Your task to perform on an android device: turn off wifi Image 0: 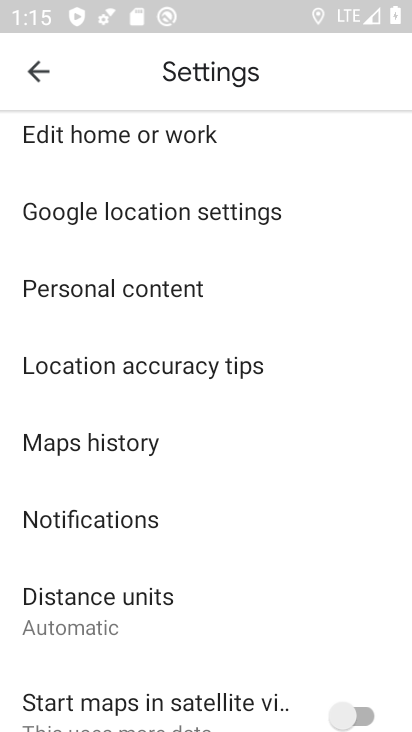
Step 0: press back button
Your task to perform on an android device: turn off wifi Image 1: 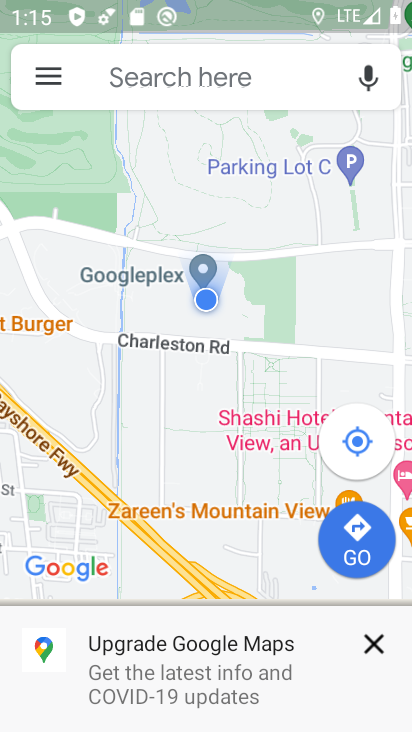
Step 1: press home button
Your task to perform on an android device: turn off wifi Image 2: 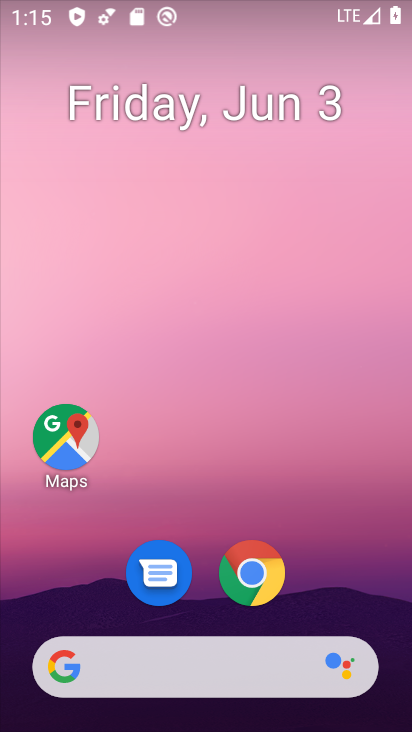
Step 2: drag from (350, 576) to (342, 318)
Your task to perform on an android device: turn off wifi Image 3: 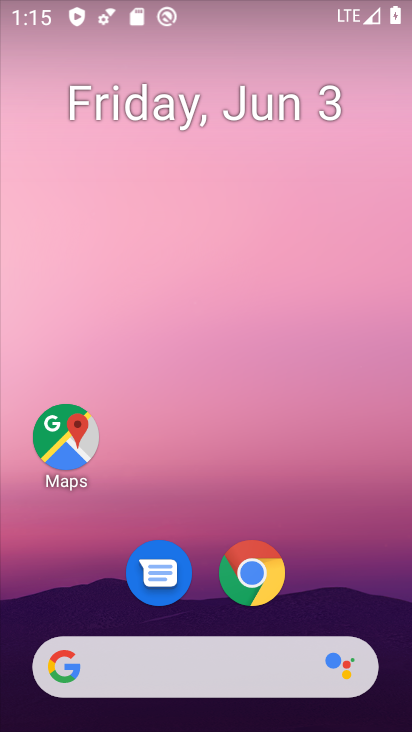
Step 3: drag from (349, 580) to (355, 212)
Your task to perform on an android device: turn off wifi Image 4: 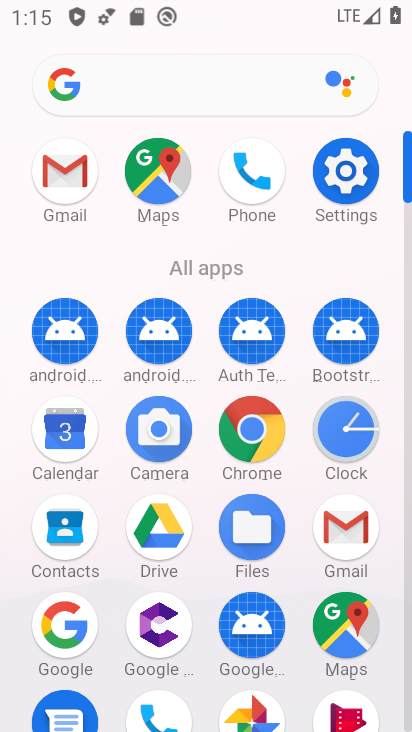
Step 4: click (338, 199)
Your task to perform on an android device: turn off wifi Image 5: 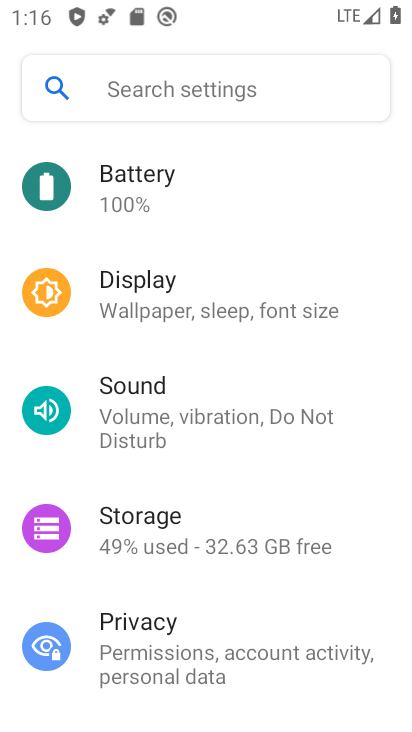
Step 5: drag from (354, 502) to (365, 431)
Your task to perform on an android device: turn off wifi Image 6: 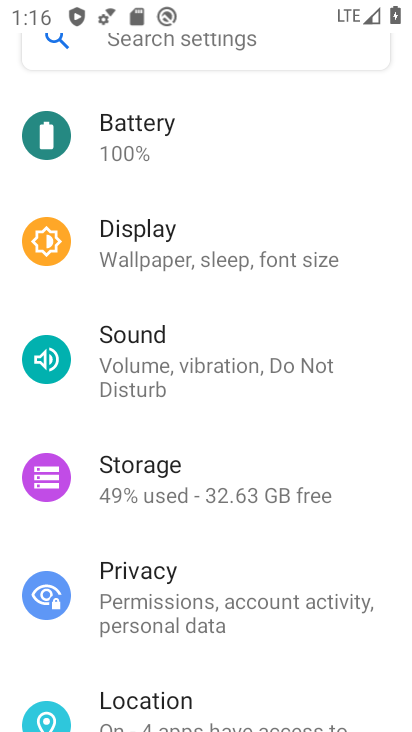
Step 6: drag from (366, 522) to (373, 428)
Your task to perform on an android device: turn off wifi Image 7: 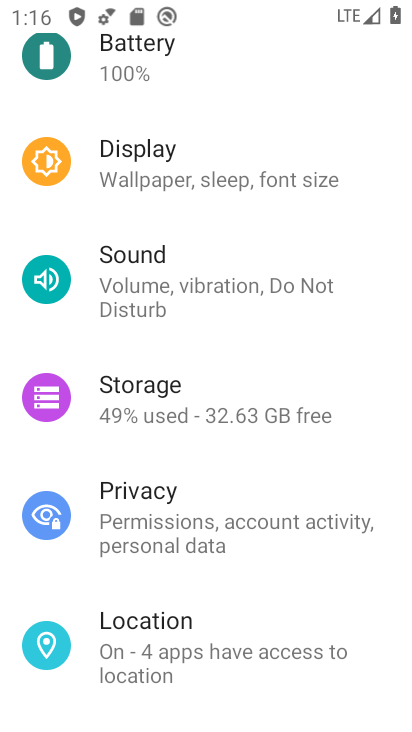
Step 7: drag from (363, 561) to (365, 476)
Your task to perform on an android device: turn off wifi Image 8: 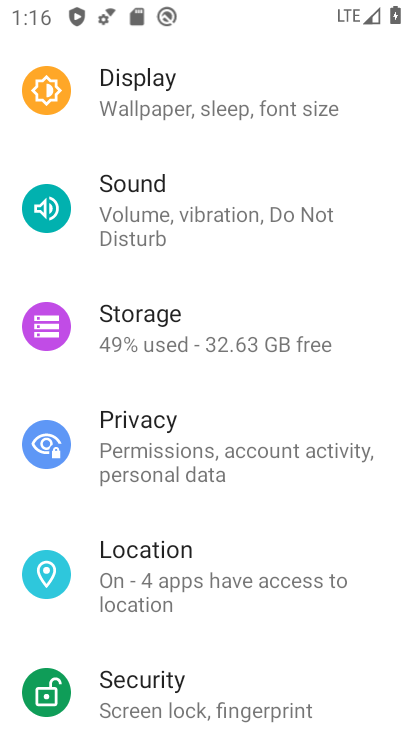
Step 8: drag from (368, 595) to (368, 545)
Your task to perform on an android device: turn off wifi Image 9: 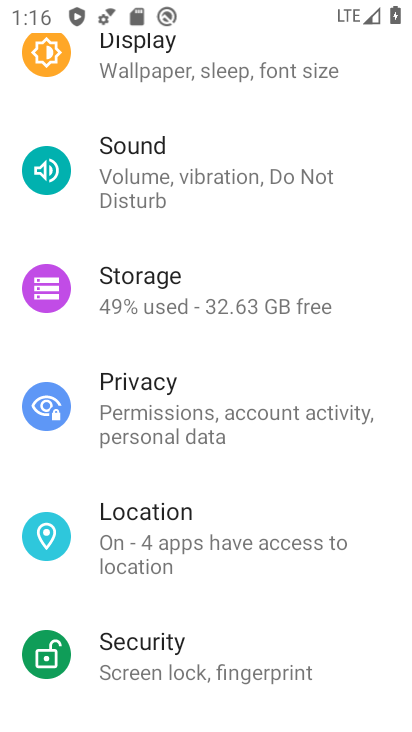
Step 9: drag from (374, 622) to (367, 538)
Your task to perform on an android device: turn off wifi Image 10: 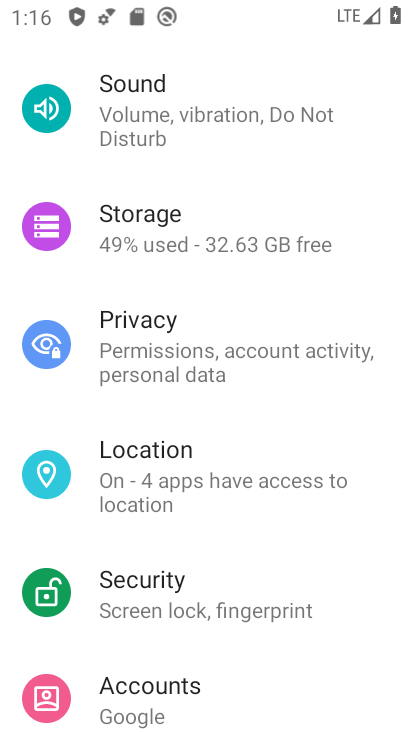
Step 10: drag from (308, 256) to (309, 427)
Your task to perform on an android device: turn off wifi Image 11: 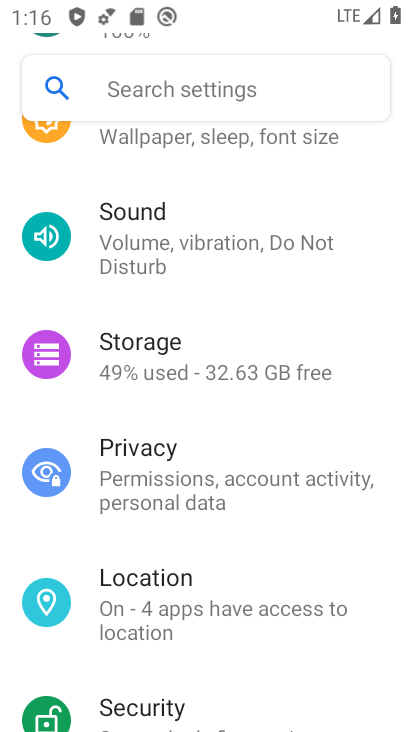
Step 11: drag from (341, 286) to (345, 382)
Your task to perform on an android device: turn off wifi Image 12: 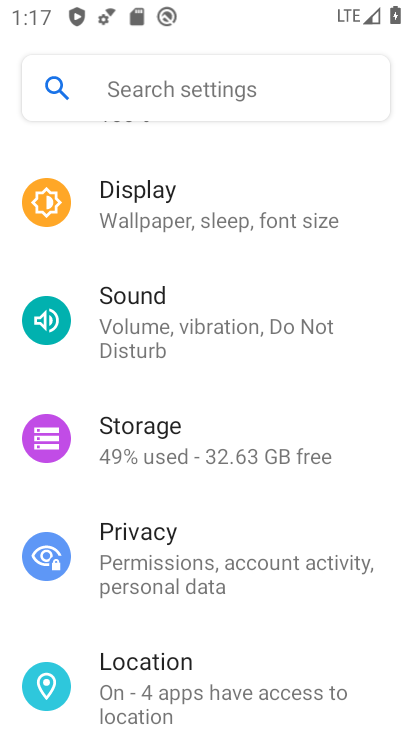
Step 12: drag from (358, 195) to (355, 412)
Your task to perform on an android device: turn off wifi Image 13: 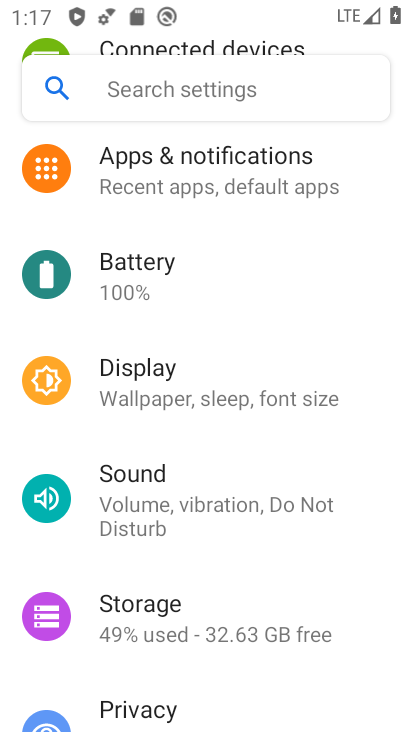
Step 13: click (309, 186)
Your task to perform on an android device: turn off wifi Image 14: 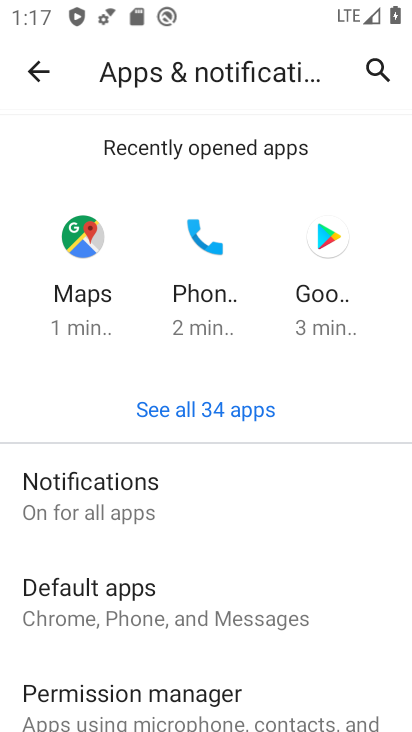
Step 14: click (43, 67)
Your task to perform on an android device: turn off wifi Image 15: 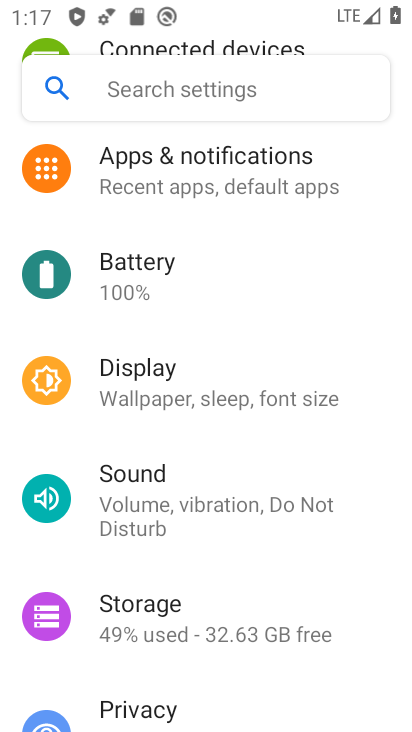
Step 15: drag from (352, 160) to (338, 346)
Your task to perform on an android device: turn off wifi Image 16: 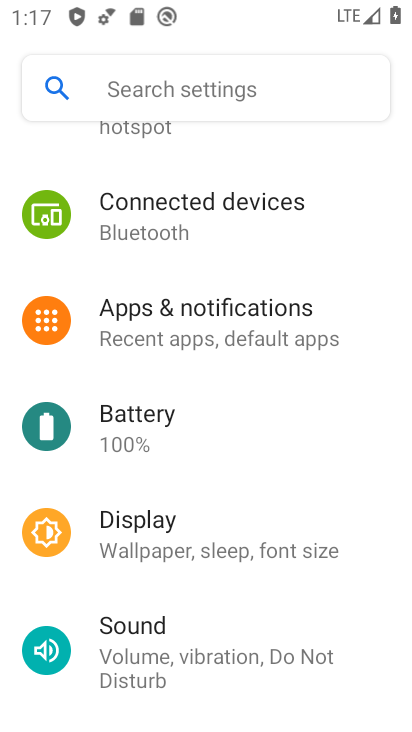
Step 16: drag from (337, 180) to (327, 286)
Your task to perform on an android device: turn off wifi Image 17: 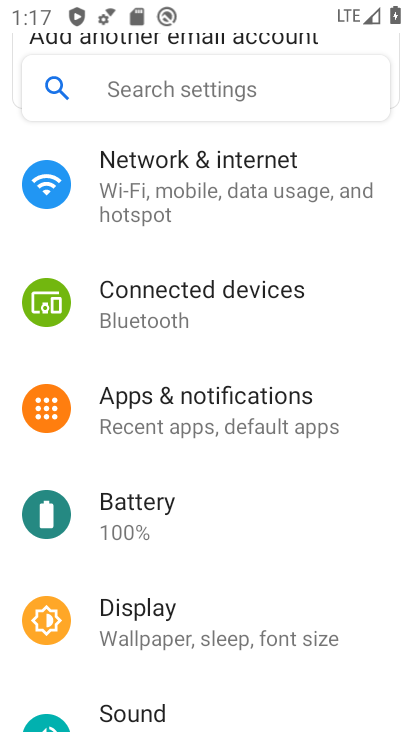
Step 17: click (328, 163)
Your task to perform on an android device: turn off wifi Image 18: 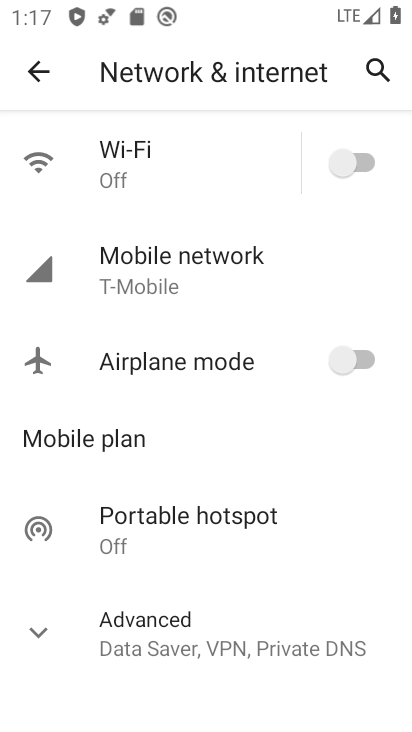
Step 18: task complete